Your task to perform on an android device: turn off priority inbox in the gmail app Image 0: 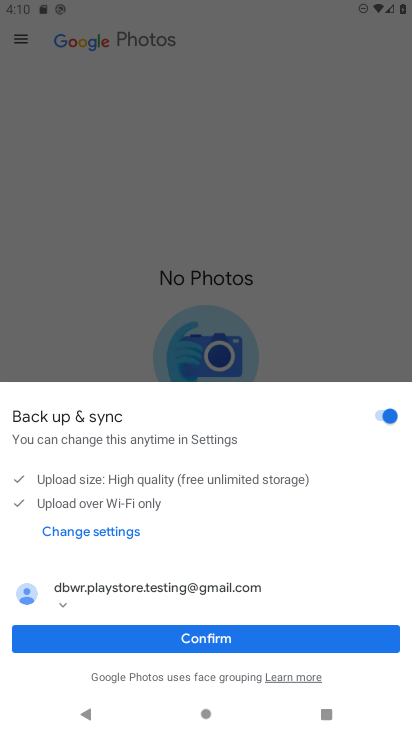
Step 0: press home button
Your task to perform on an android device: turn off priority inbox in the gmail app Image 1: 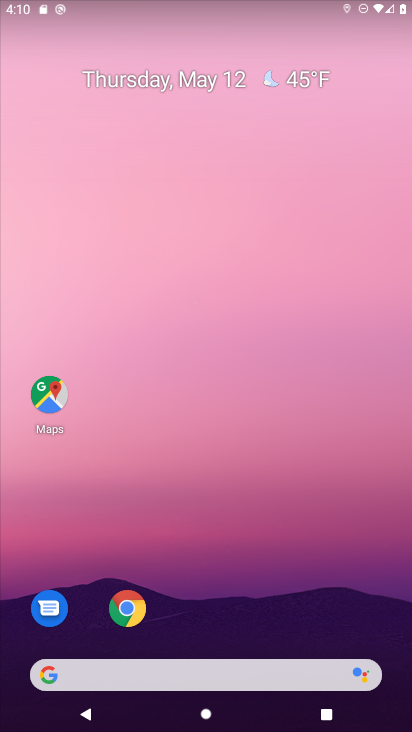
Step 1: drag from (237, 597) to (244, 81)
Your task to perform on an android device: turn off priority inbox in the gmail app Image 2: 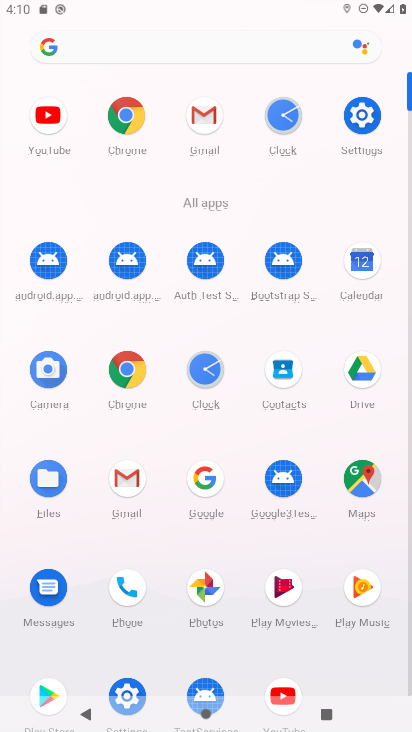
Step 2: click (361, 109)
Your task to perform on an android device: turn off priority inbox in the gmail app Image 3: 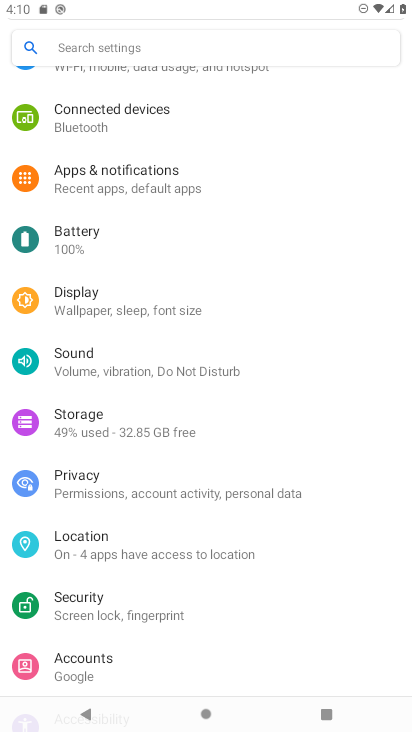
Step 3: press home button
Your task to perform on an android device: turn off priority inbox in the gmail app Image 4: 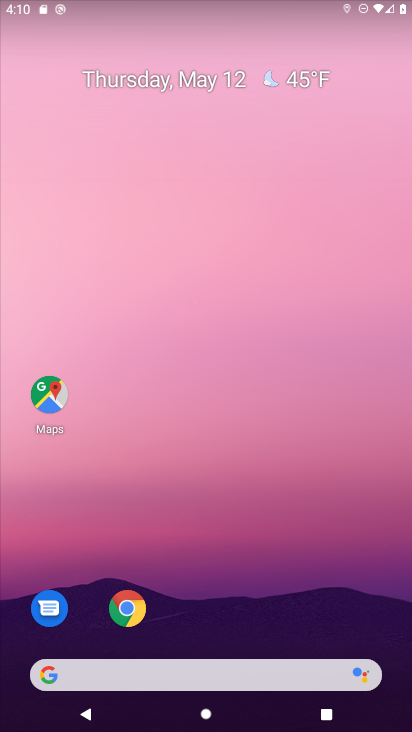
Step 4: drag from (208, 619) to (195, 204)
Your task to perform on an android device: turn off priority inbox in the gmail app Image 5: 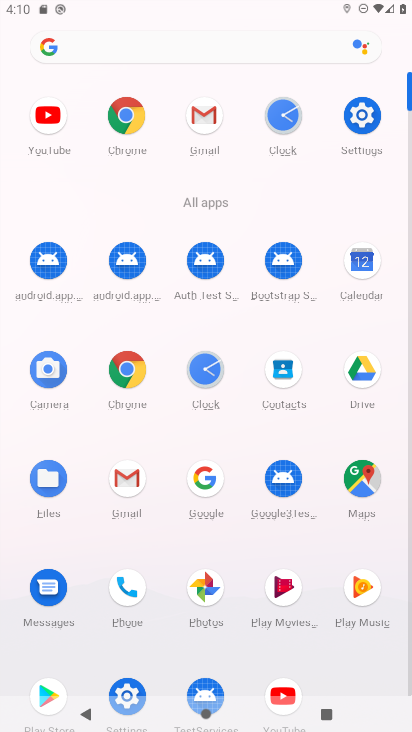
Step 5: click (376, 129)
Your task to perform on an android device: turn off priority inbox in the gmail app Image 6: 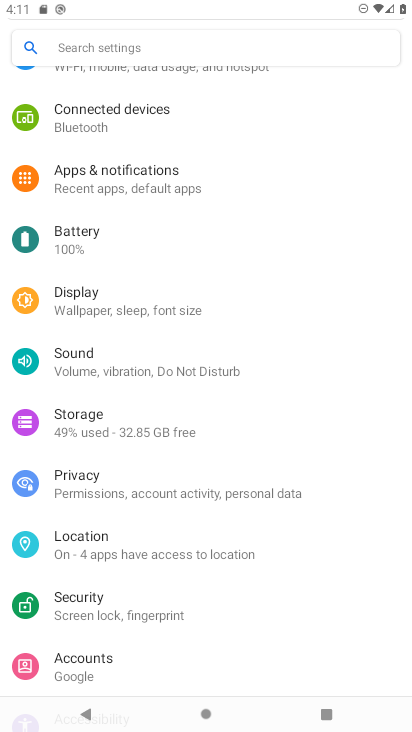
Step 6: press home button
Your task to perform on an android device: turn off priority inbox in the gmail app Image 7: 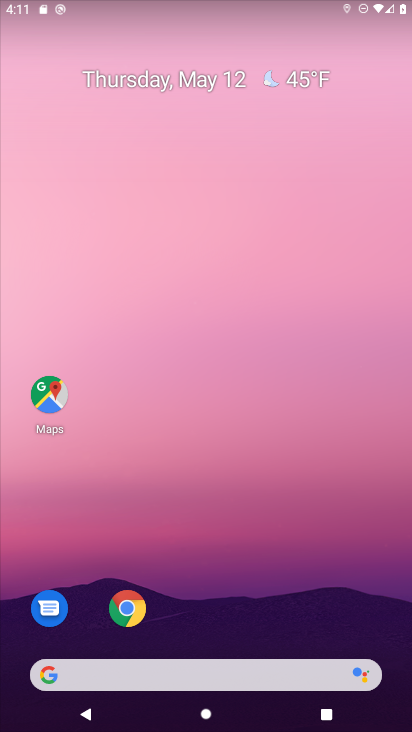
Step 7: drag from (301, 513) to (225, 267)
Your task to perform on an android device: turn off priority inbox in the gmail app Image 8: 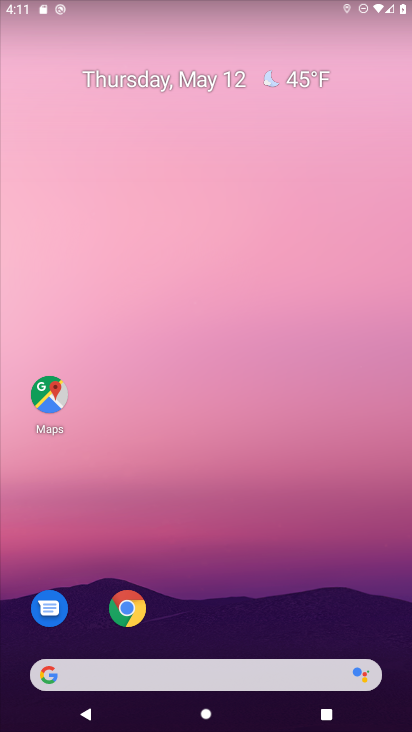
Step 8: drag from (268, 584) to (209, 300)
Your task to perform on an android device: turn off priority inbox in the gmail app Image 9: 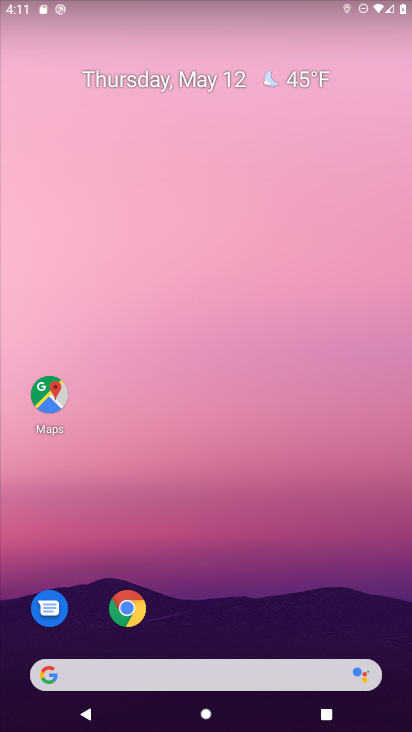
Step 9: drag from (242, 604) to (141, 18)
Your task to perform on an android device: turn off priority inbox in the gmail app Image 10: 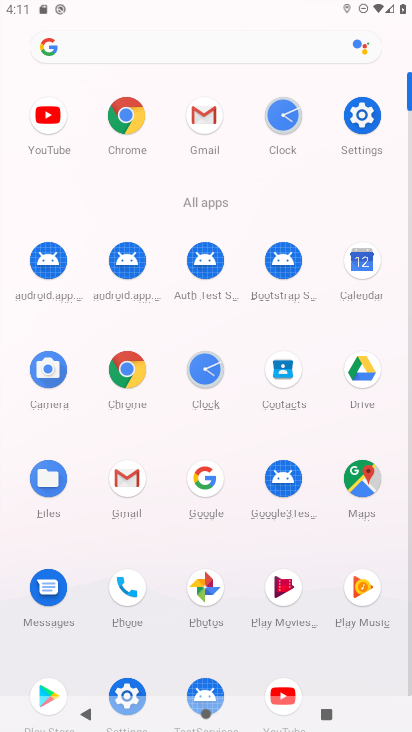
Step 10: click (223, 124)
Your task to perform on an android device: turn off priority inbox in the gmail app Image 11: 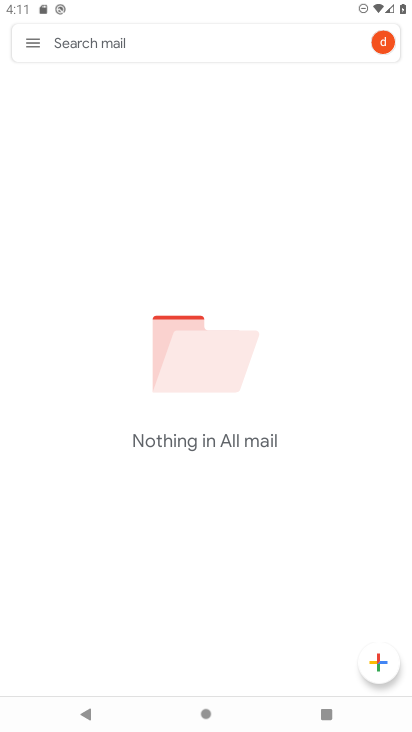
Step 11: click (26, 56)
Your task to perform on an android device: turn off priority inbox in the gmail app Image 12: 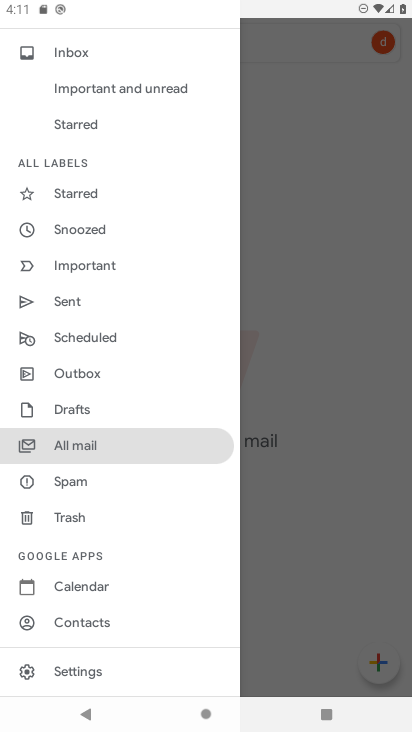
Step 12: click (123, 664)
Your task to perform on an android device: turn off priority inbox in the gmail app Image 13: 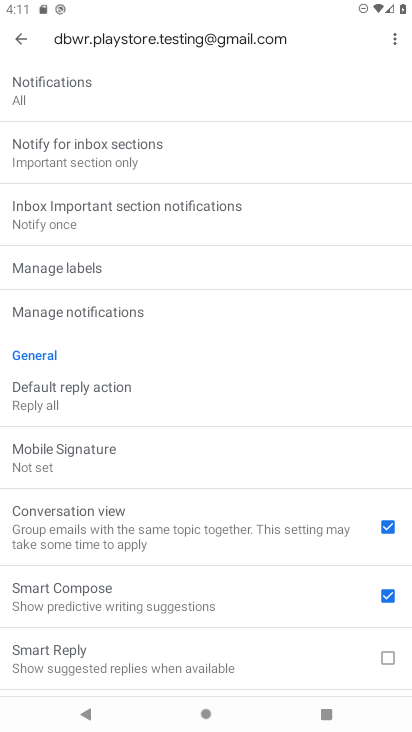
Step 13: drag from (76, 174) to (137, 478)
Your task to perform on an android device: turn off priority inbox in the gmail app Image 14: 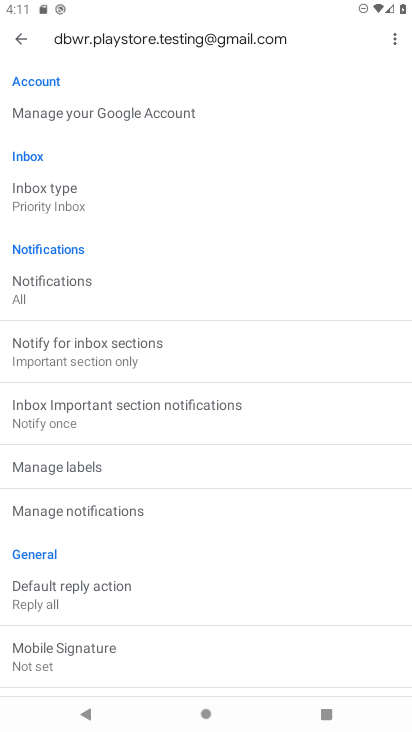
Step 14: click (121, 195)
Your task to perform on an android device: turn off priority inbox in the gmail app Image 15: 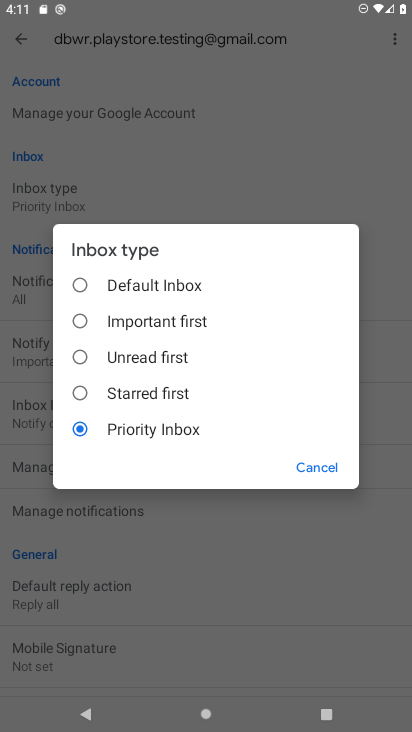
Step 15: click (173, 301)
Your task to perform on an android device: turn off priority inbox in the gmail app Image 16: 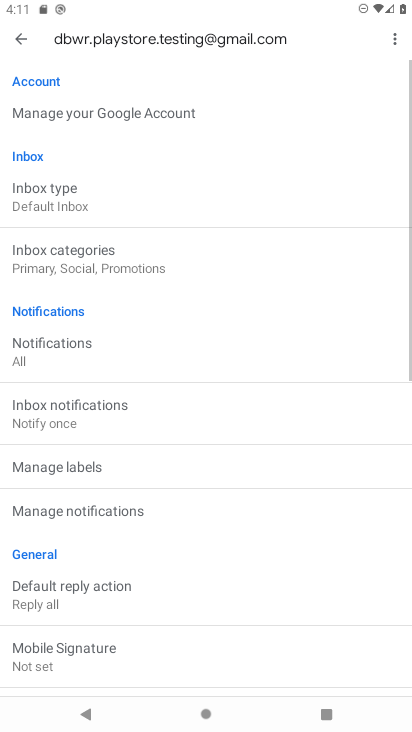
Step 16: task complete